Your task to perform on an android device: Go to ESPN.com Image 0: 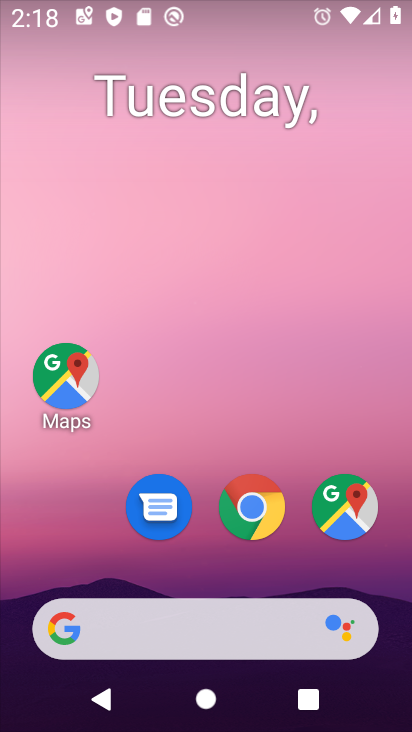
Step 0: drag from (316, 540) to (262, 165)
Your task to perform on an android device: Go to ESPN.com Image 1: 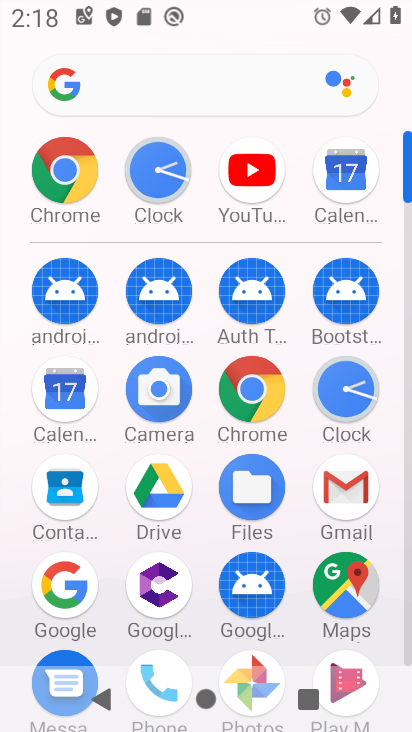
Step 1: click (50, 167)
Your task to perform on an android device: Go to ESPN.com Image 2: 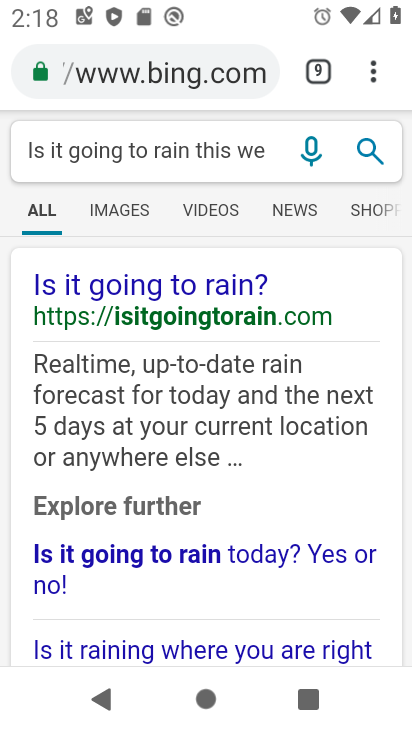
Step 2: click (357, 64)
Your task to perform on an android device: Go to ESPN.com Image 3: 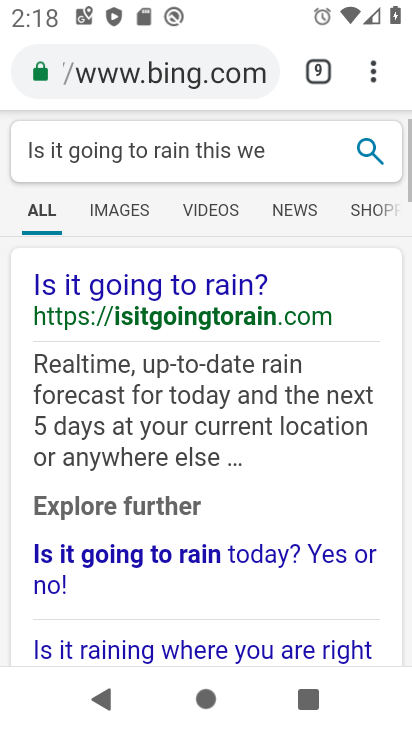
Step 3: click (361, 70)
Your task to perform on an android device: Go to ESPN.com Image 4: 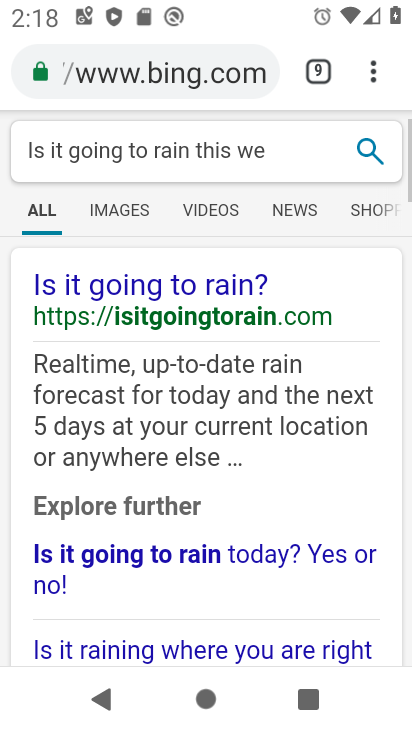
Step 4: click (376, 74)
Your task to perform on an android device: Go to ESPN.com Image 5: 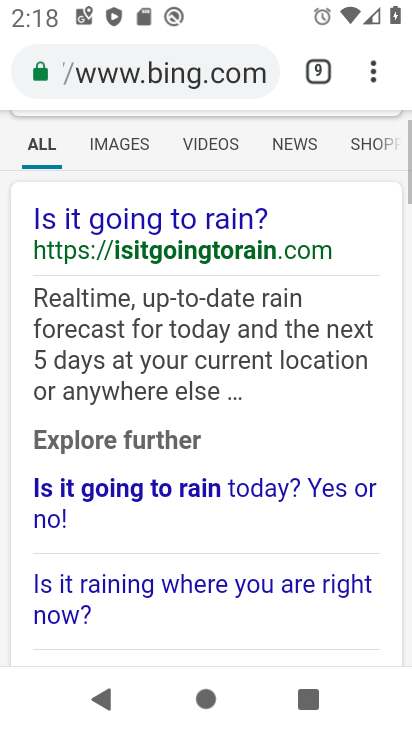
Step 5: click (367, 79)
Your task to perform on an android device: Go to ESPN.com Image 6: 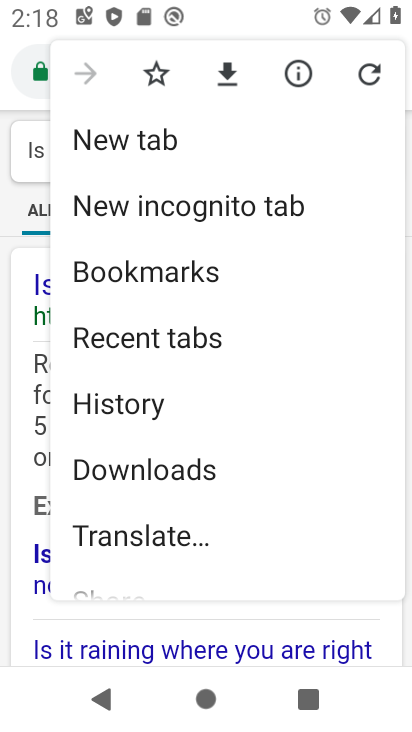
Step 6: click (161, 145)
Your task to perform on an android device: Go to ESPN.com Image 7: 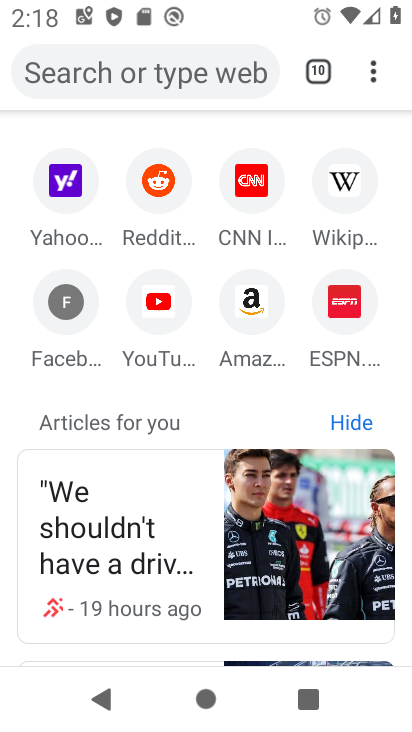
Step 7: click (328, 296)
Your task to perform on an android device: Go to ESPN.com Image 8: 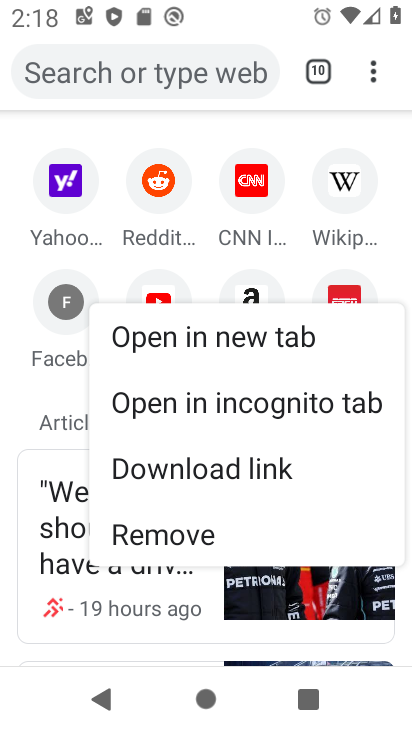
Step 8: click (336, 290)
Your task to perform on an android device: Go to ESPN.com Image 9: 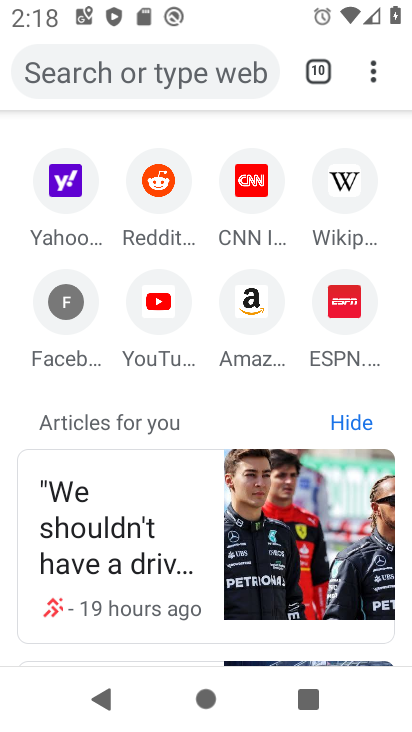
Step 9: click (336, 290)
Your task to perform on an android device: Go to ESPN.com Image 10: 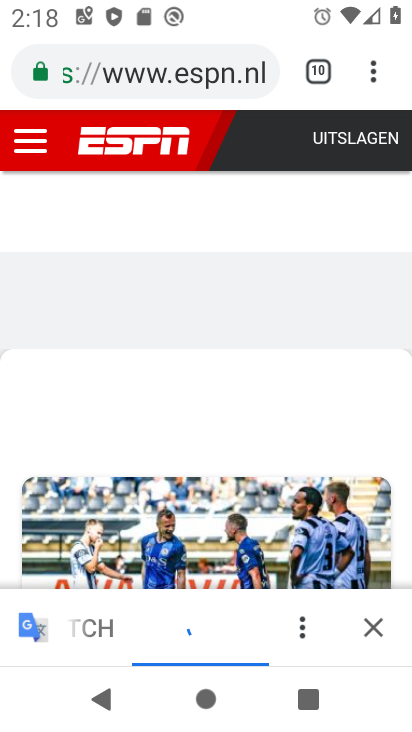
Step 10: task complete